Your task to perform on an android device: Clear the cart on newegg. Image 0: 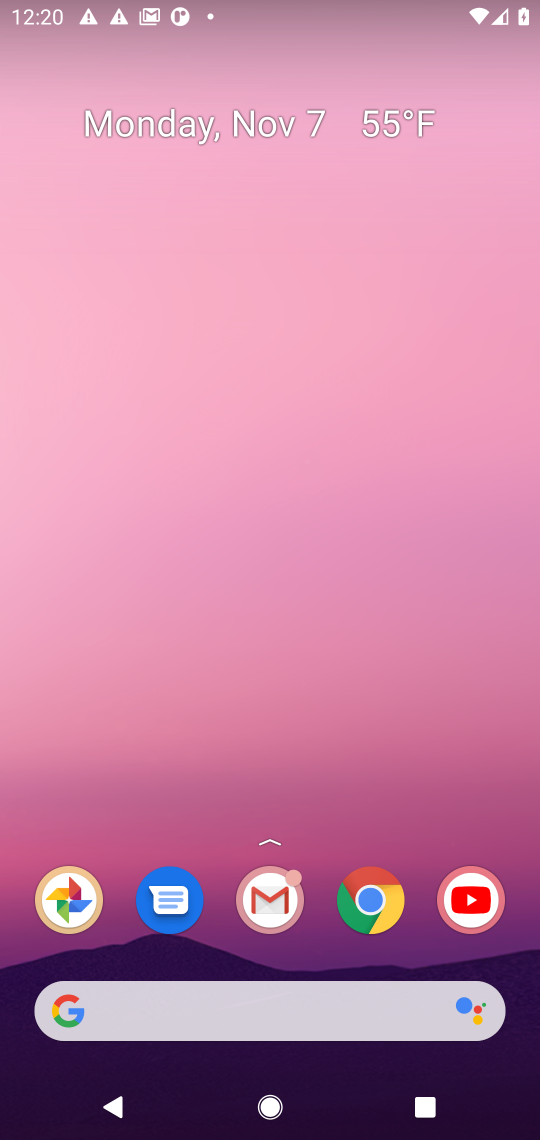
Step 0: click (222, 995)
Your task to perform on an android device: Clear the cart on newegg. Image 1: 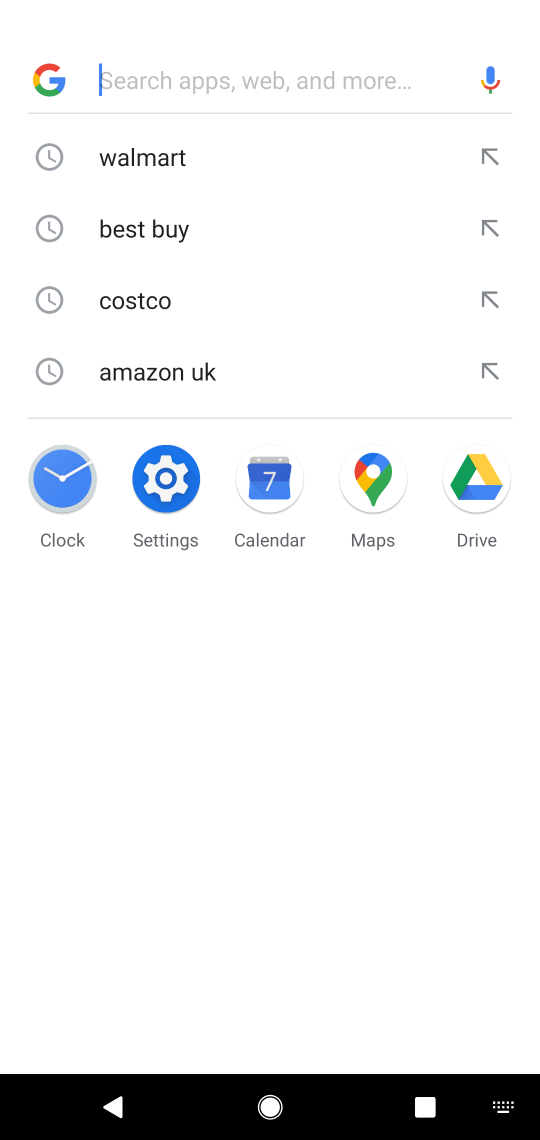
Step 1: type "newegg"
Your task to perform on an android device: Clear the cart on newegg. Image 2: 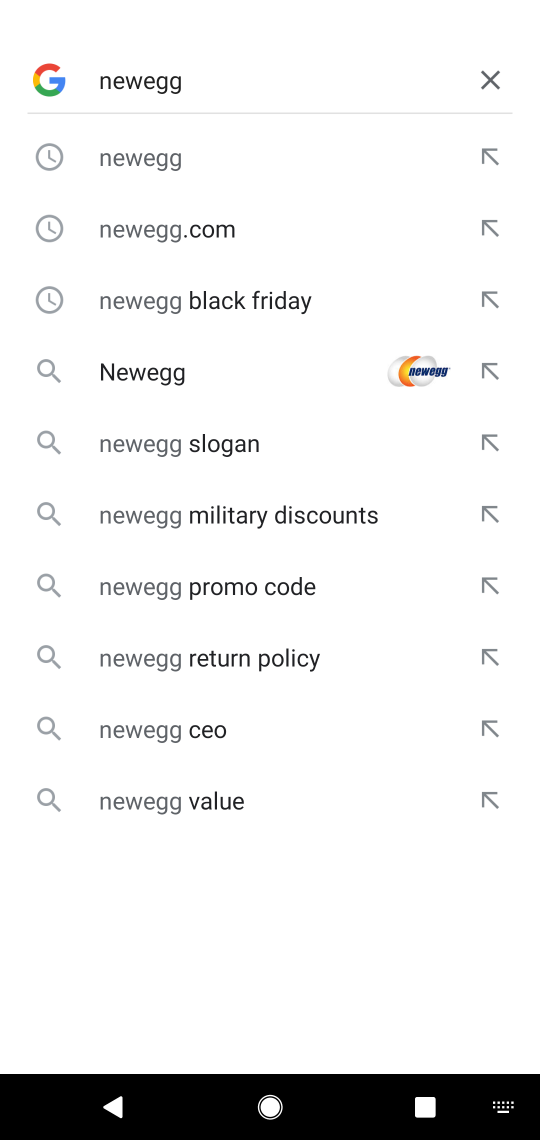
Step 2: click (192, 157)
Your task to perform on an android device: Clear the cart on newegg. Image 3: 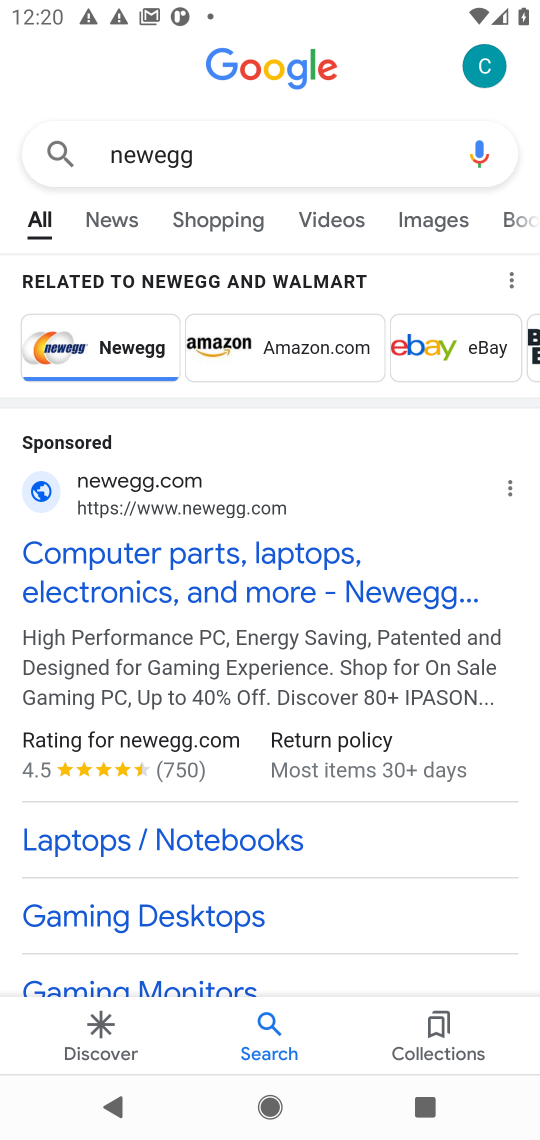
Step 3: click (181, 594)
Your task to perform on an android device: Clear the cart on newegg. Image 4: 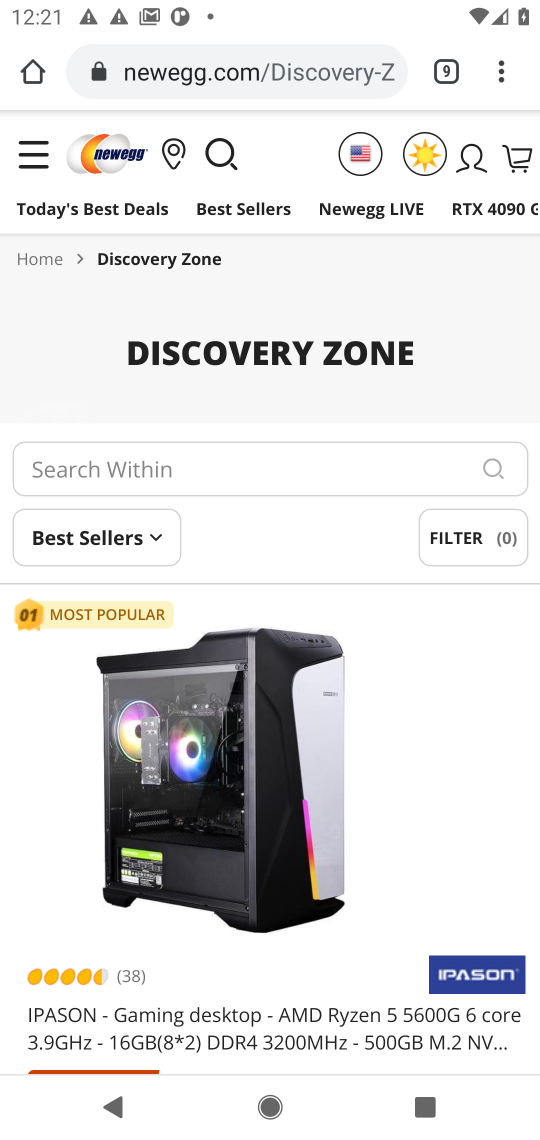
Step 4: task complete